Your task to perform on an android device: Show me recent news Image 0: 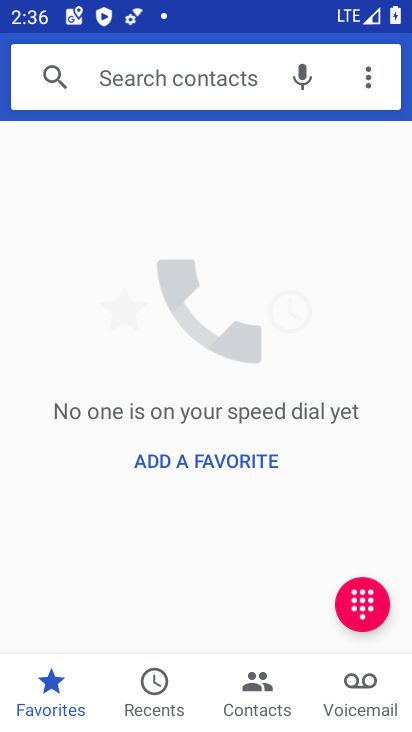
Step 0: press home button
Your task to perform on an android device: Show me recent news Image 1: 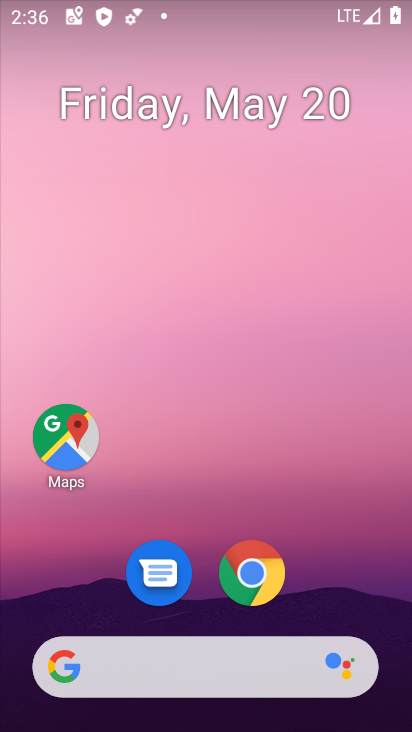
Step 1: drag from (358, 593) to (311, 20)
Your task to perform on an android device: Show me recent news Image 2: 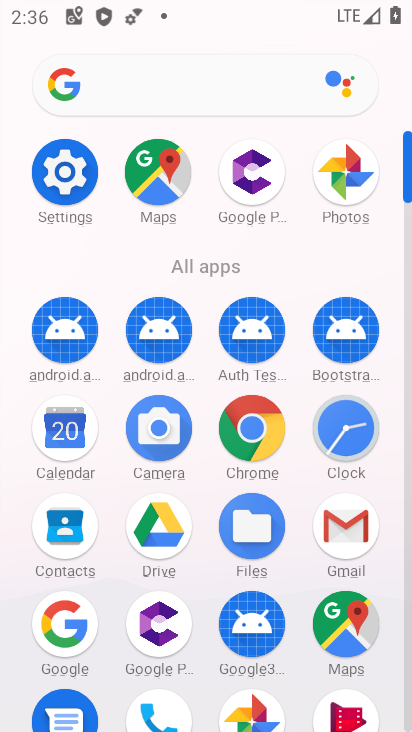
Step 2: click (272, 426)
Your task to perform on an android device: Show me recent news Image 3: 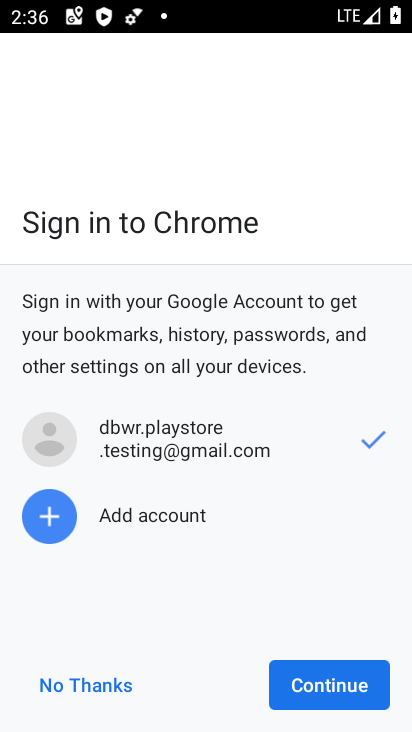
Step 3: click (336, 679)
Your task to perform on an android device: Show me recent news Image 4: 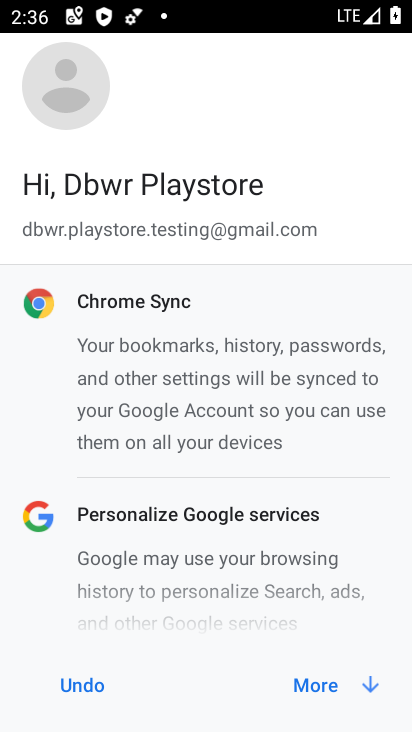
Step 4: click (336, 679)
Your task to perform on an android device: Show me recent news Image 5: 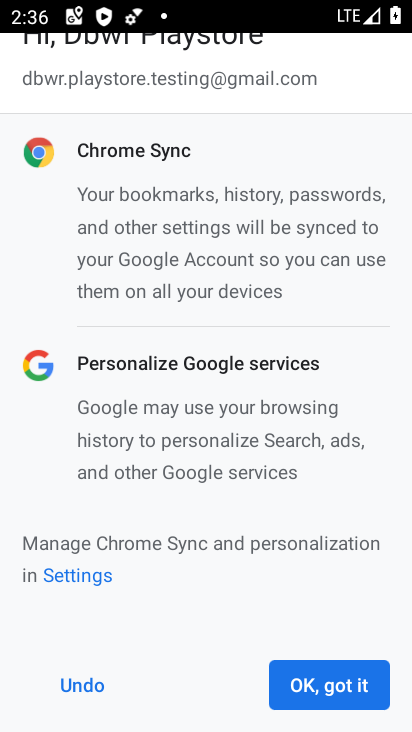
Step 5: click (336, 679)
Your task to perform on an android device: Show me recent news Image 6: 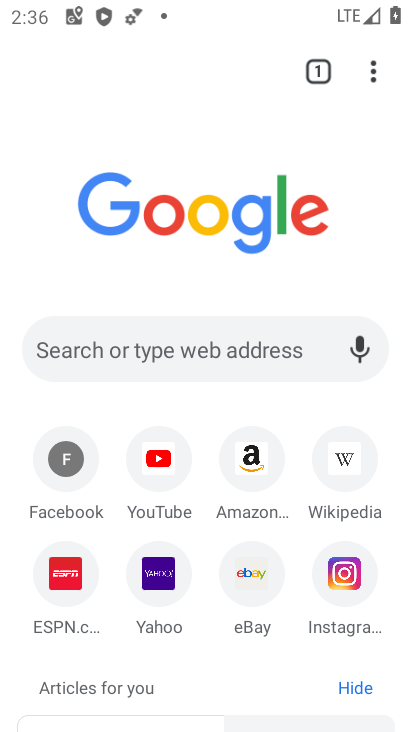
Step 6: click (249, 340)
Your task to perform on an android device: Show me recent news Image 7: 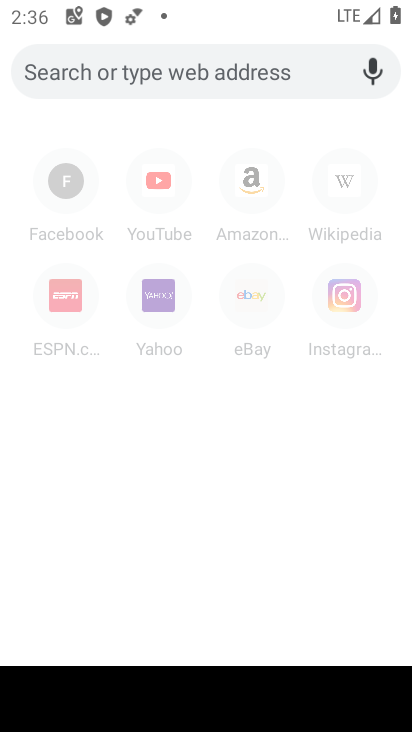
Step 7: click (249, 340)
Your task to perform on an android device: Show me recent news Image 8: 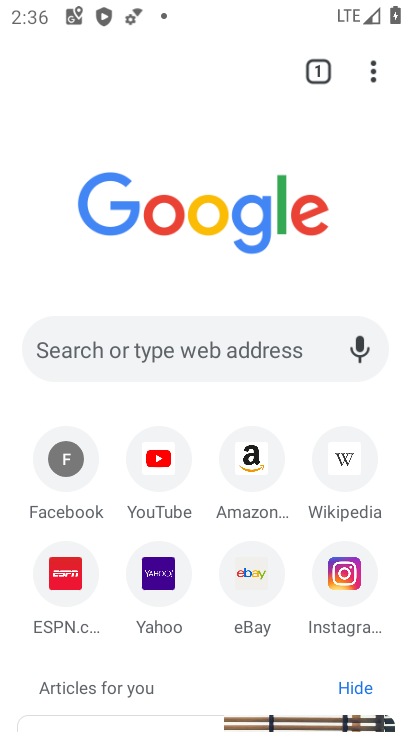
Step 8: click (249, 340)
Your task to perform on an android device: Show me recent news Image 9: 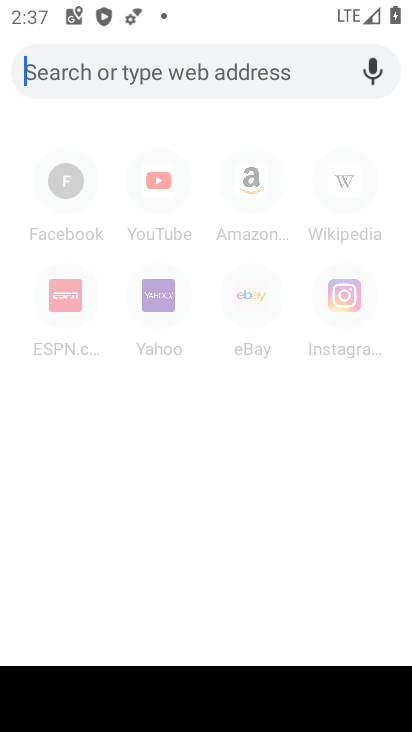
Step 9: type "recent news"
Your task to perform on an android device: Show me recent news Image 10: 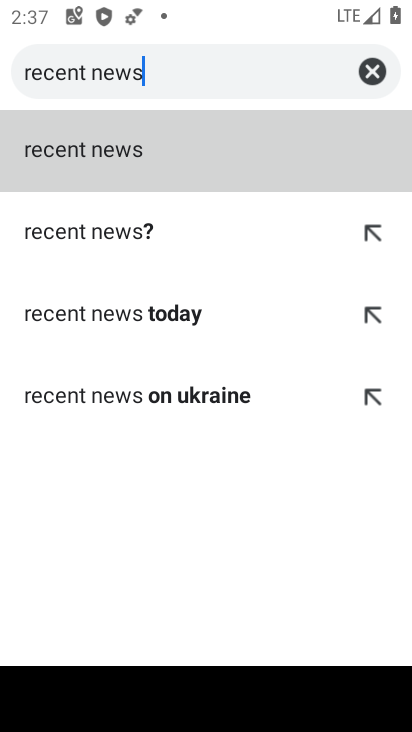
Step 10: click (163, 139)
Your task to perform on an android device: Show me recent news Image 11: 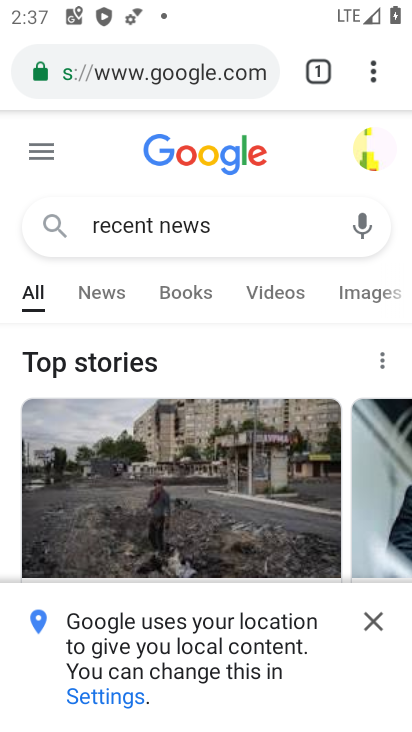
Step 11: task complete